Your task to perform on an android device: Open battery settings Image 0: 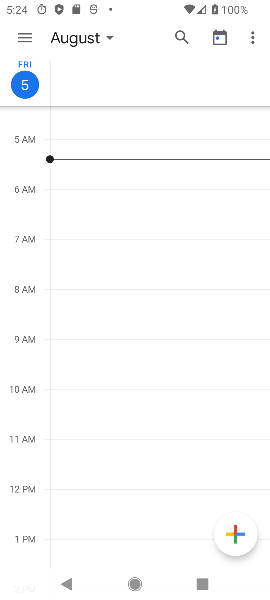
Step 0: press back button
Your task to perform on an android device: Open battery settings Image 1: 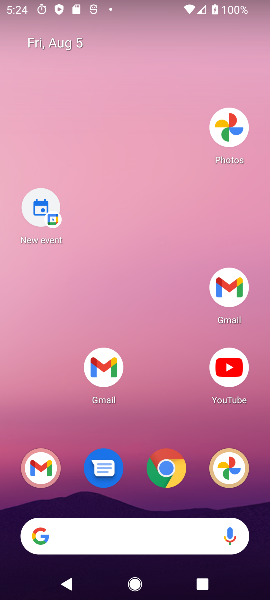
Step 1: drag from (154, 547) to (155, 12)
Your task to perform on an android device: Open battery settings Image 2: 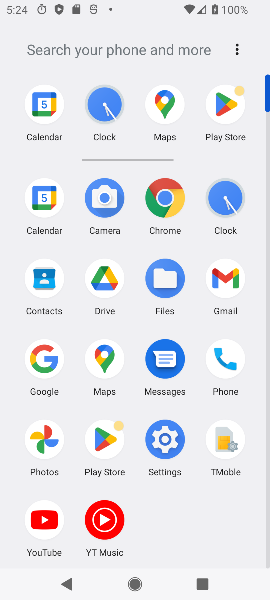
Step 2: click (163, 438)
Your task to perform on an android device: Open battery settings Image 3: 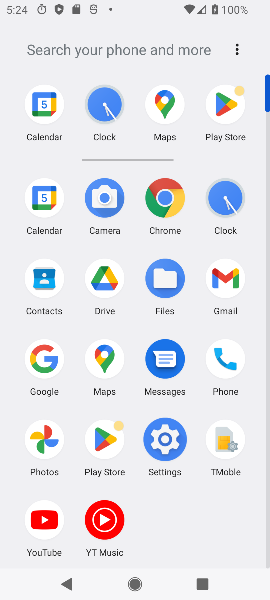
Step 3: click (163, 438)
Your task to perform on an android device: Open battery settings Image 4: 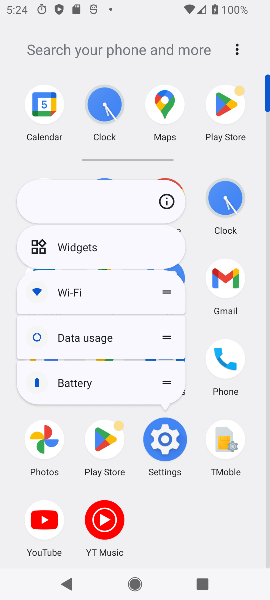
Step 4: click (163, 438)
Your task to perform on an android device: Open battery settings Image 5: 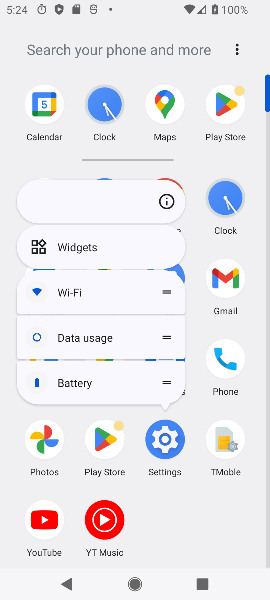
Step 5: click (163, 438)
Your task to perform on an android device: Open battery settings Image 6: 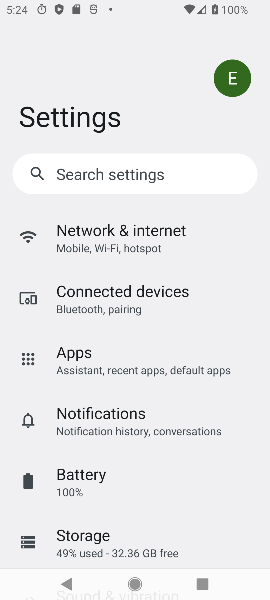
Step 6: click (76, 480)
Your task to perform on an android device: Open battery settings Image 7: 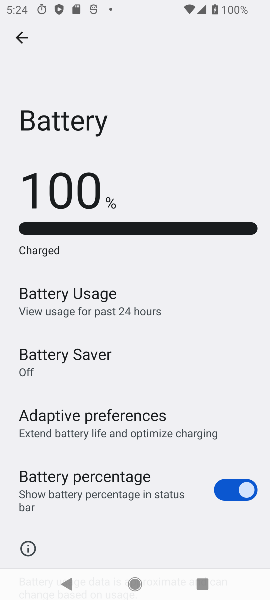
Step 7: task complete